Your task to perform on an android device: see sites visited before in the chrome app Image 0: 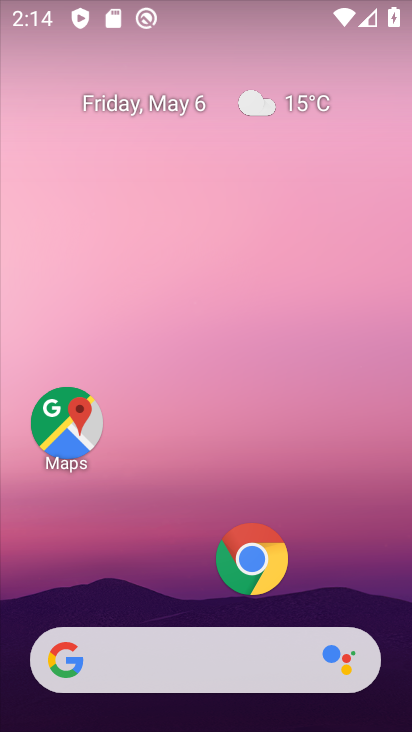
Step 0: click (251, 551)
Your task to perform on an android device: see sites visited before in the chrome app Image 1: 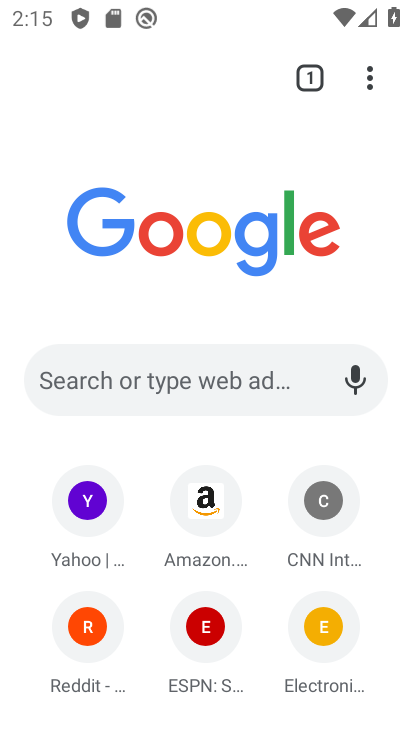
Step 1: click (373, 75)
Your task to perform on an android device: see sites visited before in the chrome app Image 2: 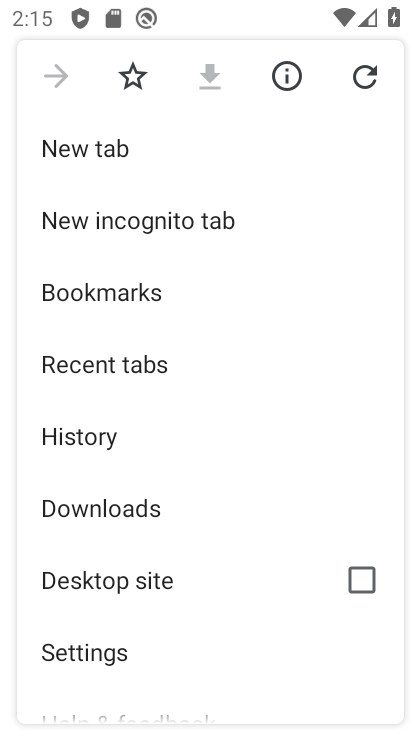
Step 2: click (132, 427)
Your task to perform on an android device: see sites visited before in the chrome app Image 3: 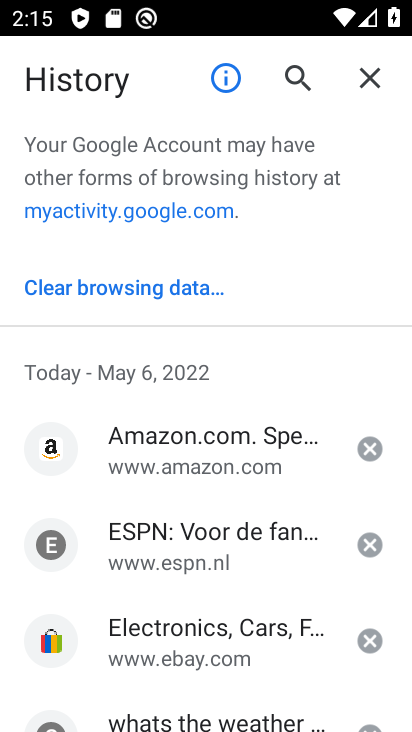
Step 3: task complete